Your task to perform on an android device: What's the weather today? Image 0: 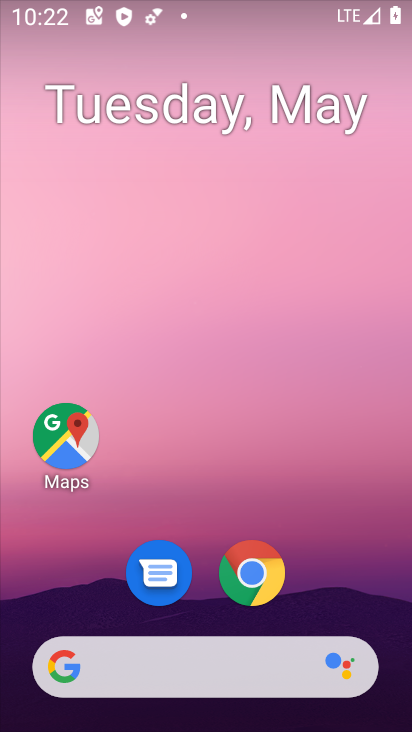
Step 0: click (177, 672)
Your task to perform on an android device: What's the weather today? Image 1: 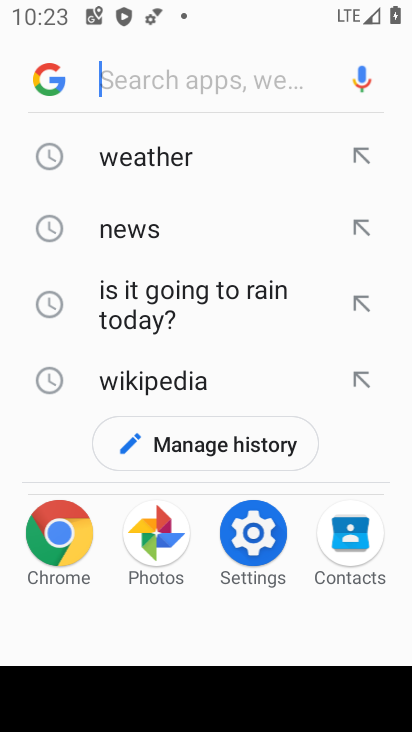
Step 1: click (210, 154)
Your task to perform on an android device: What's the weather today? Image 2: 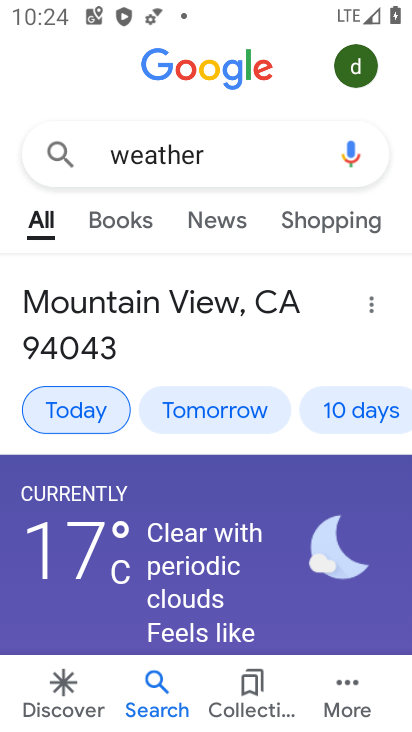
Step 2: task complete